Your task to perform on an android device: What is the recent news? Image 0: 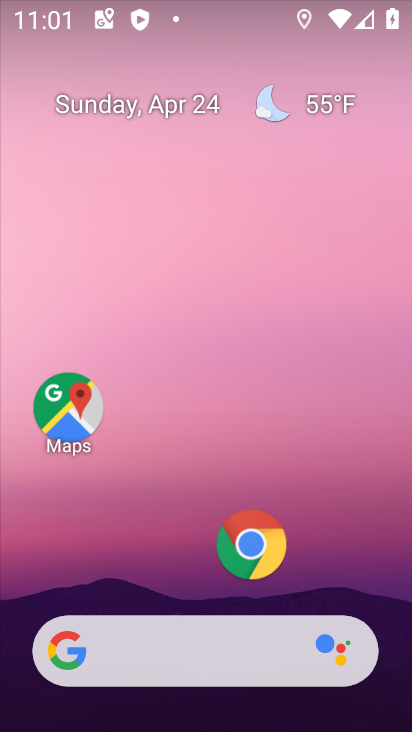
Step 0: drag from (186, 294) to (197, 125)
Your task to perform on an android device: What is the recent news? Image 1: 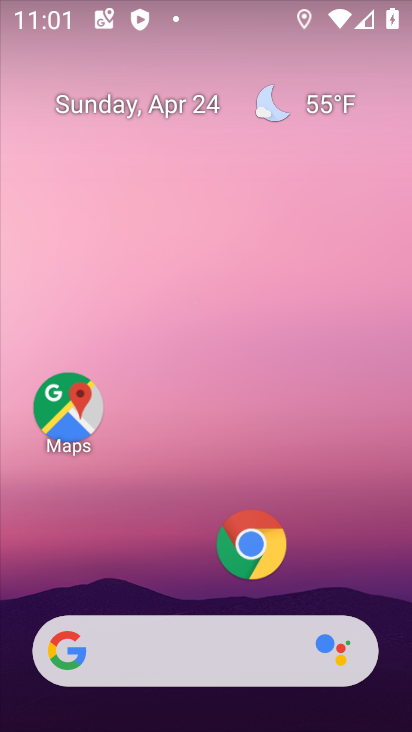
Step 1: drag from (183, 588) to (196, 66)
Your task to perform on an android device: What is the recent news? Image 2: 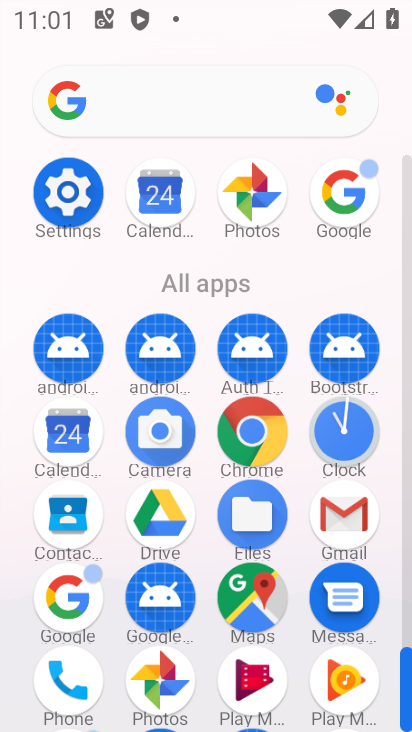
Step 2: click (66, 621)
Your task to perform on an android device: What is the recent news? Image 3: 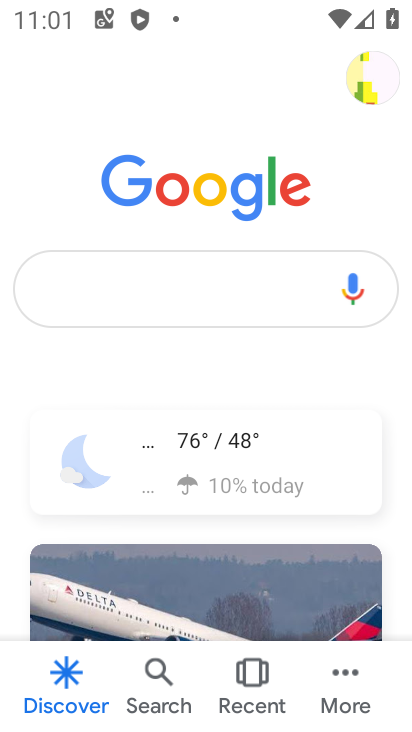
Step 3: click (130, 303)
Your task to perform on an android device: What is the recent news? Image 4: 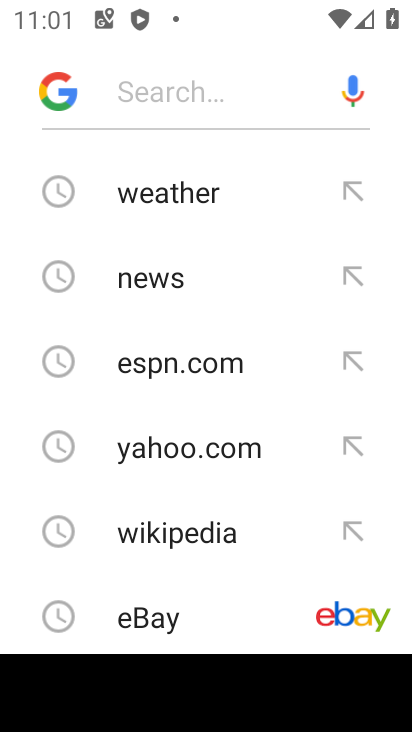
Step 4: type "recent news"
Your task to perform on an android device: What is the recent news? Image 5: 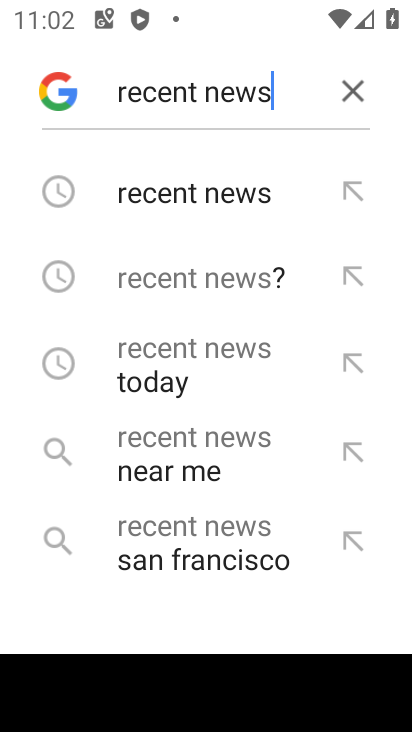
Step 5: click (252, 188)
Your task to perform on an android device: What is the recent news? Image 6: 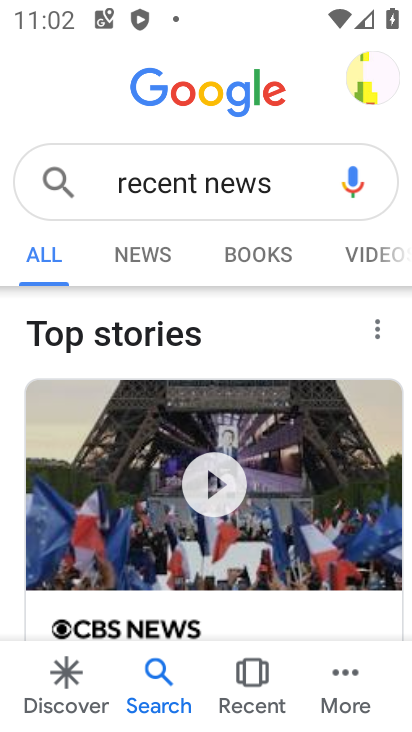
Step 6: click (127, 251)
Your task to perform on an android device: What is the recent news? Image 7: 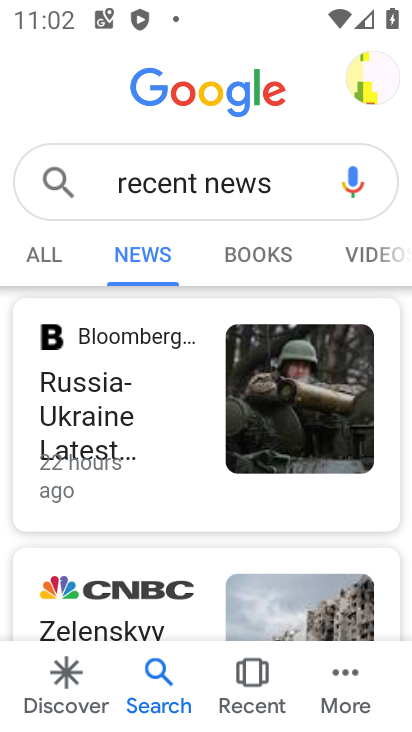
Step 7: task complete